Your task to perform on an android device: check data usage Image 0: 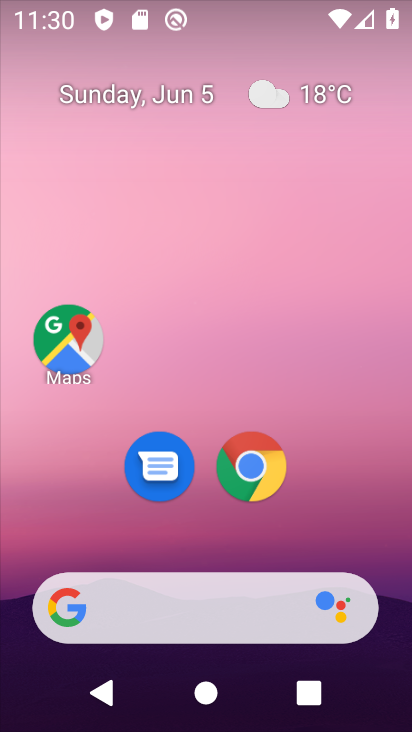
Step 0: drag from (333, 495) to (240, 48)
Your task to perform on an android device: check data usage Image 1: 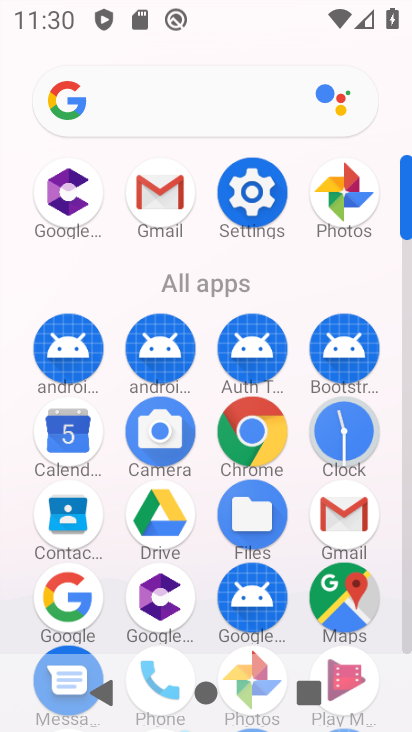
Step 1: click (256, 189)
Your task to perform on an android device: check data usage Image 2: 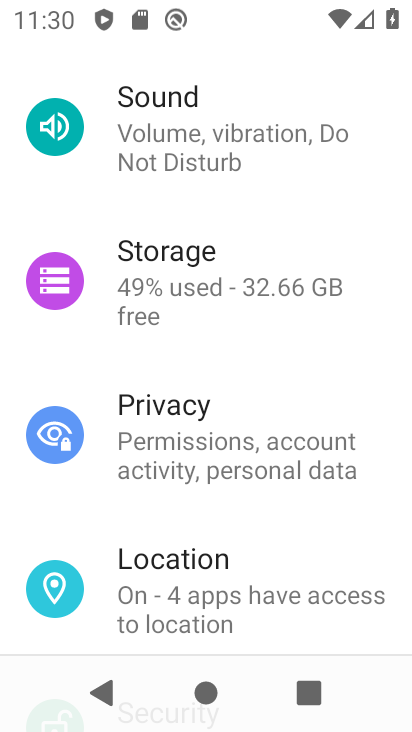
Step 2: drag from (258, 145) to (271, 521)
Your task to perform on an android device: check data usage Image 3: 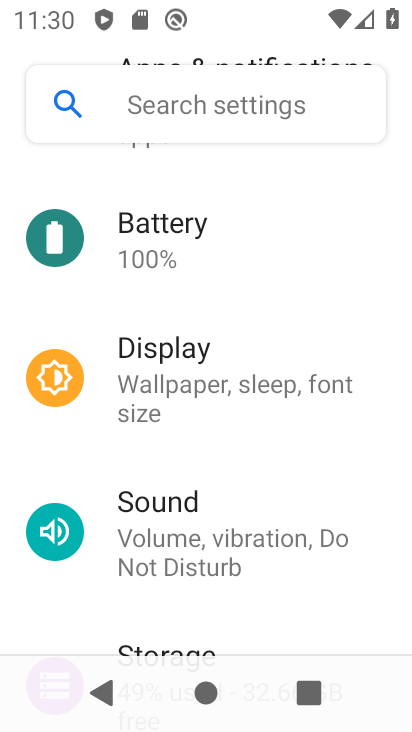
Step 3: drag from (271, 191) to (271, 542)
Your task to perform on an android device: check data usage Image 4: 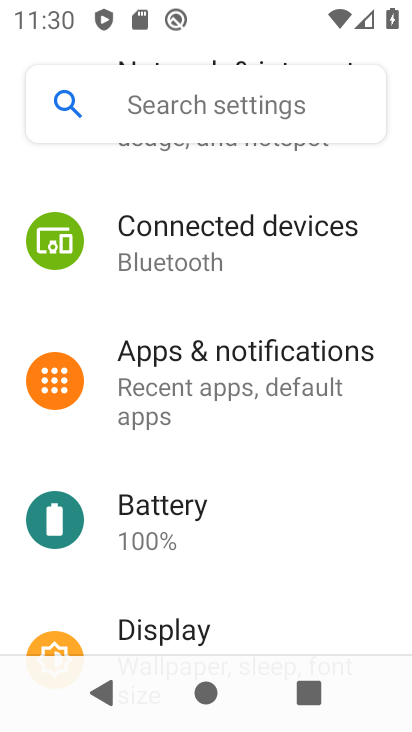
Step 4: drag from (302, 276) to (301, 540)
Your task to perform on an android device: check data usage Image 5: 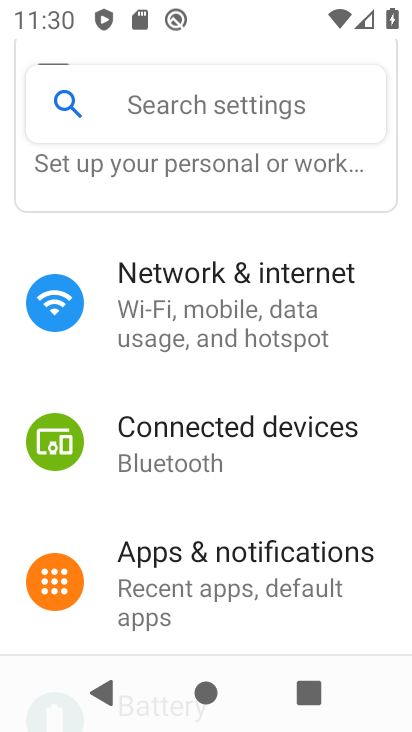
Step 5: click (309, 314)
Your task to perform on an android device: check data usage Image 6: 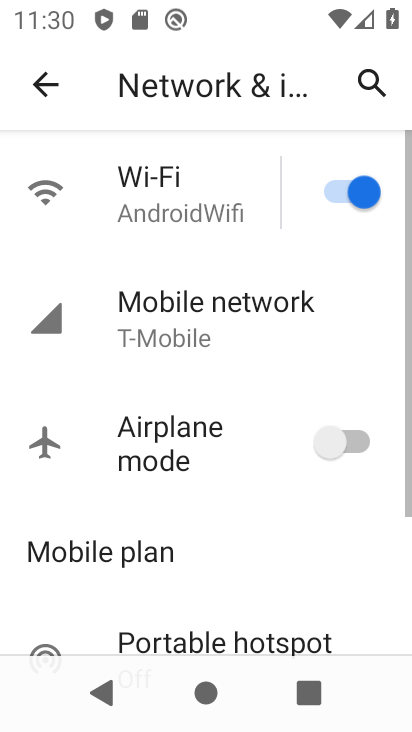
Step 6: click (251, 304)
Your task to perform on an android device: check data usage Image 7: 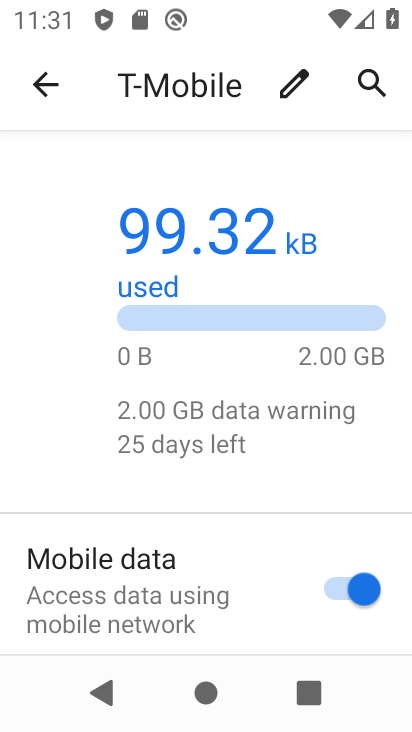
Step 7: task complete